Your task to perform on an android device: Go to battery settings Image 0: 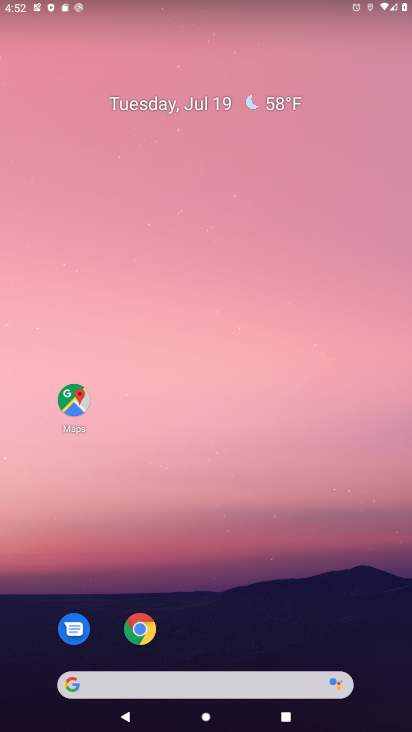
Step 0: press back button
Your task to perform on an android device: Go to battery settings Image 1: 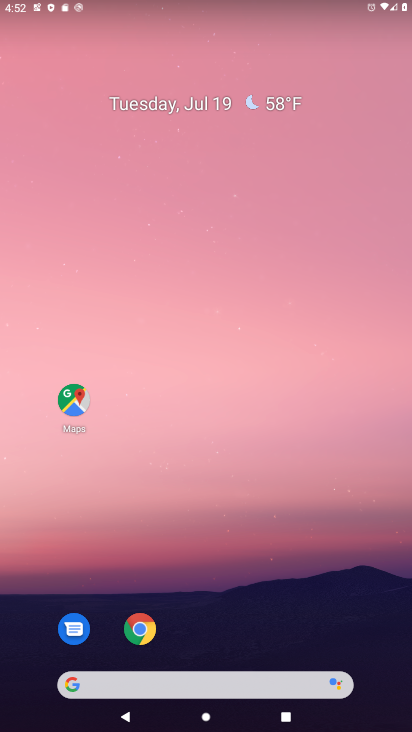
Step 1: drag from (261, 606) to (117, 119)
Your task to perform on an android device: Go to battery settings Image 2: 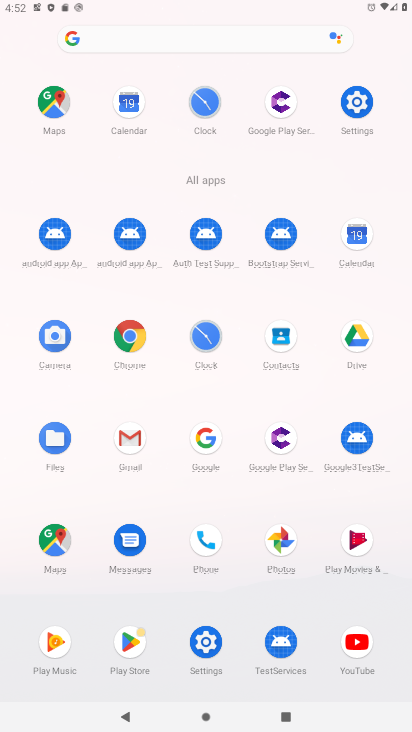
Step 2: click (348, 111)
Your task to perform on an android device: Go to battery settings Image 3: 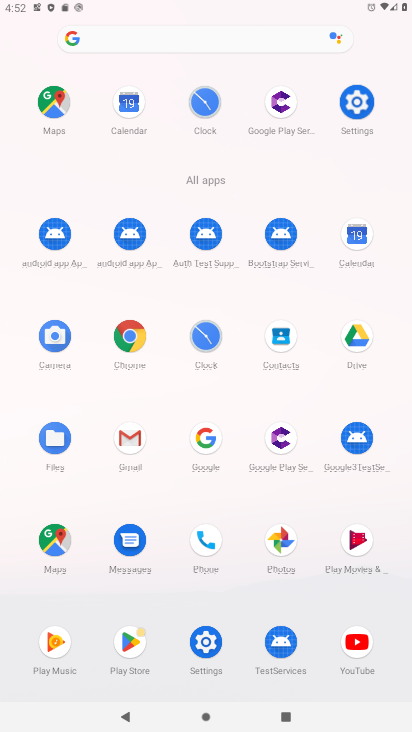
Step 3: click (348, 110)
Your task to perform on an android device: Go to battery settings Image 4: 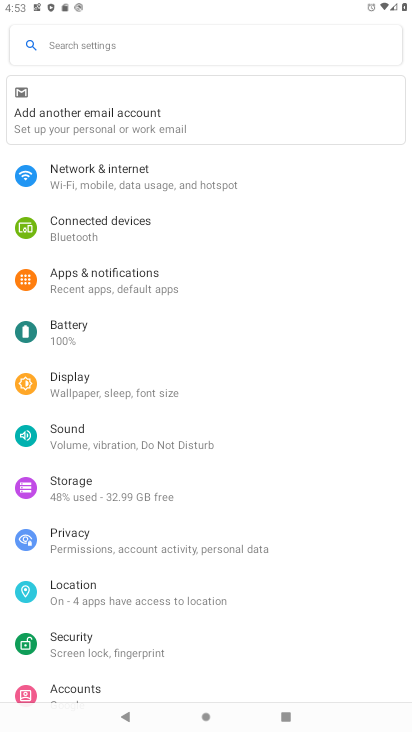
Step 4: click (74, 331)
Your task to perform on an android device: Go to battery settings Image 5: 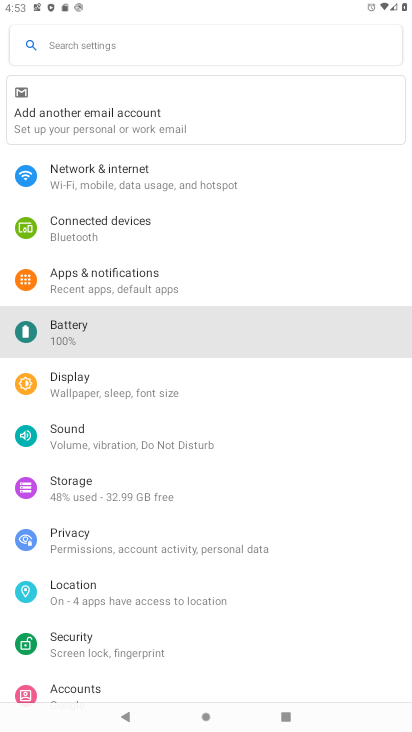
Step 5: click (68, 333)
Your task to perform on an android device: Go to battery settings Image 6: 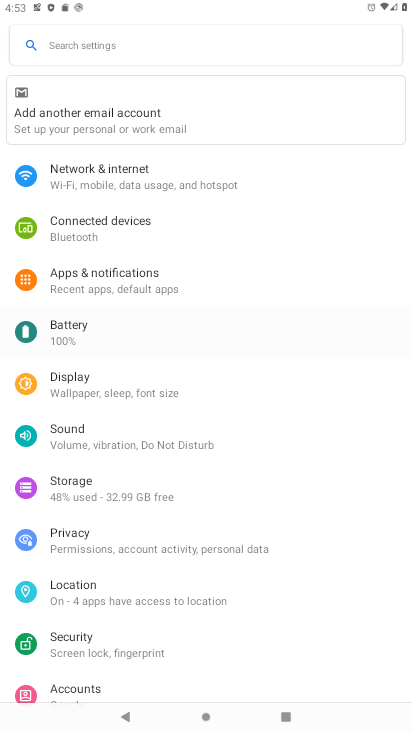
Step 6: click (68, 333)
Your task to perform on an android device: Go to battery settings Image 7: 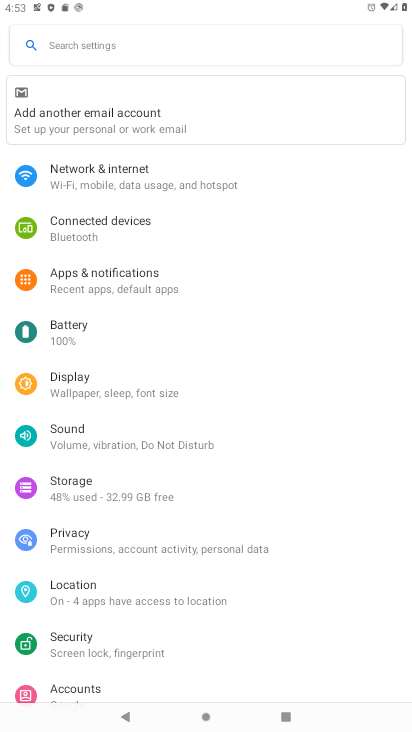
Step 7: click (67, 333)
Your task to perform on an android device: Go to battery settings Image 8: 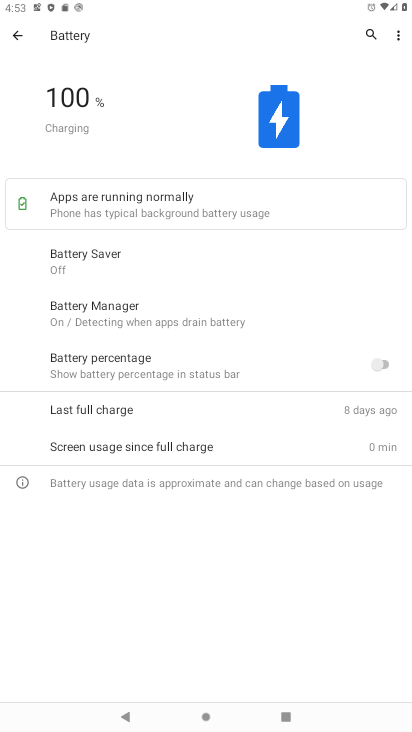
Step 8: task complete